Your task to perform on an android device: open app "Messenger Lite" Image 0: 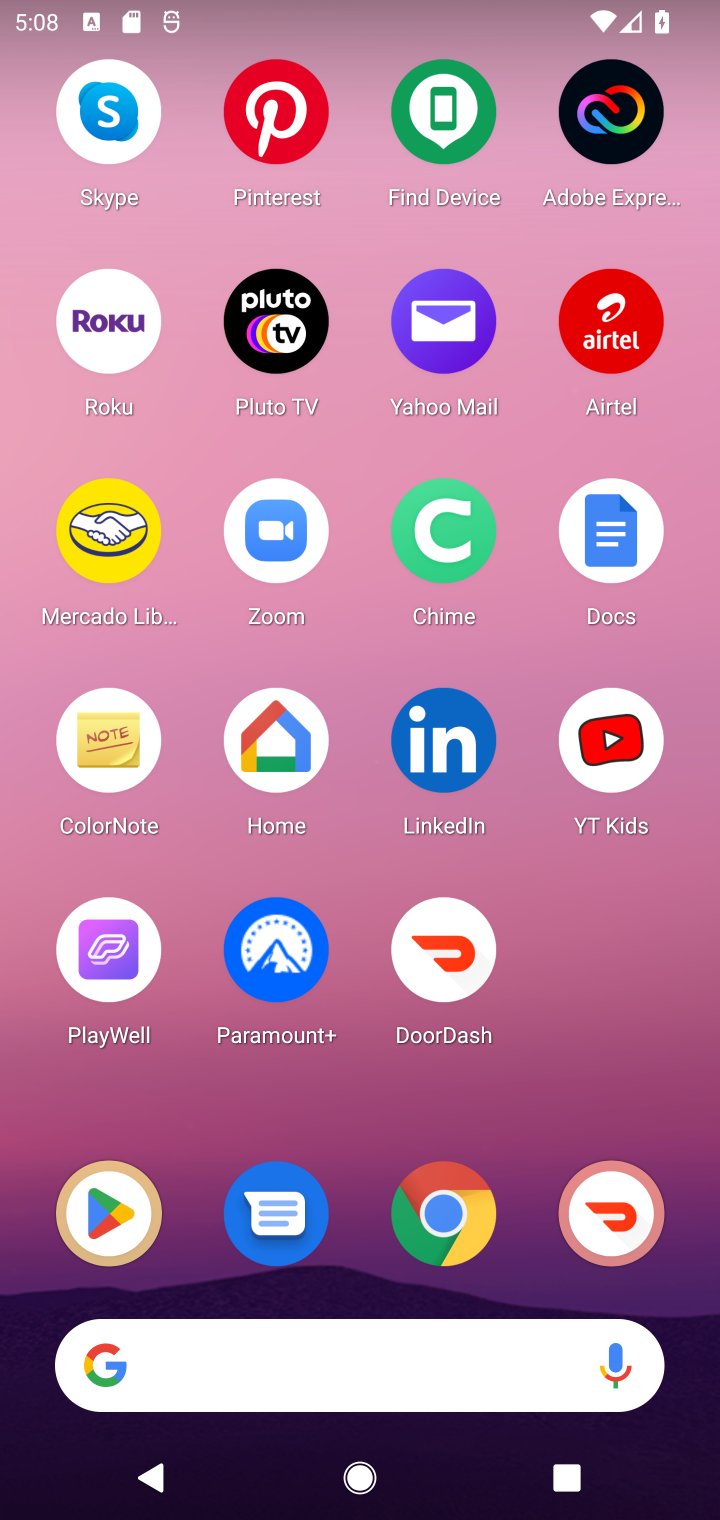
Step 0: press home button
Your task to perform on an android device: open app "Messenger Lite" Image 1: 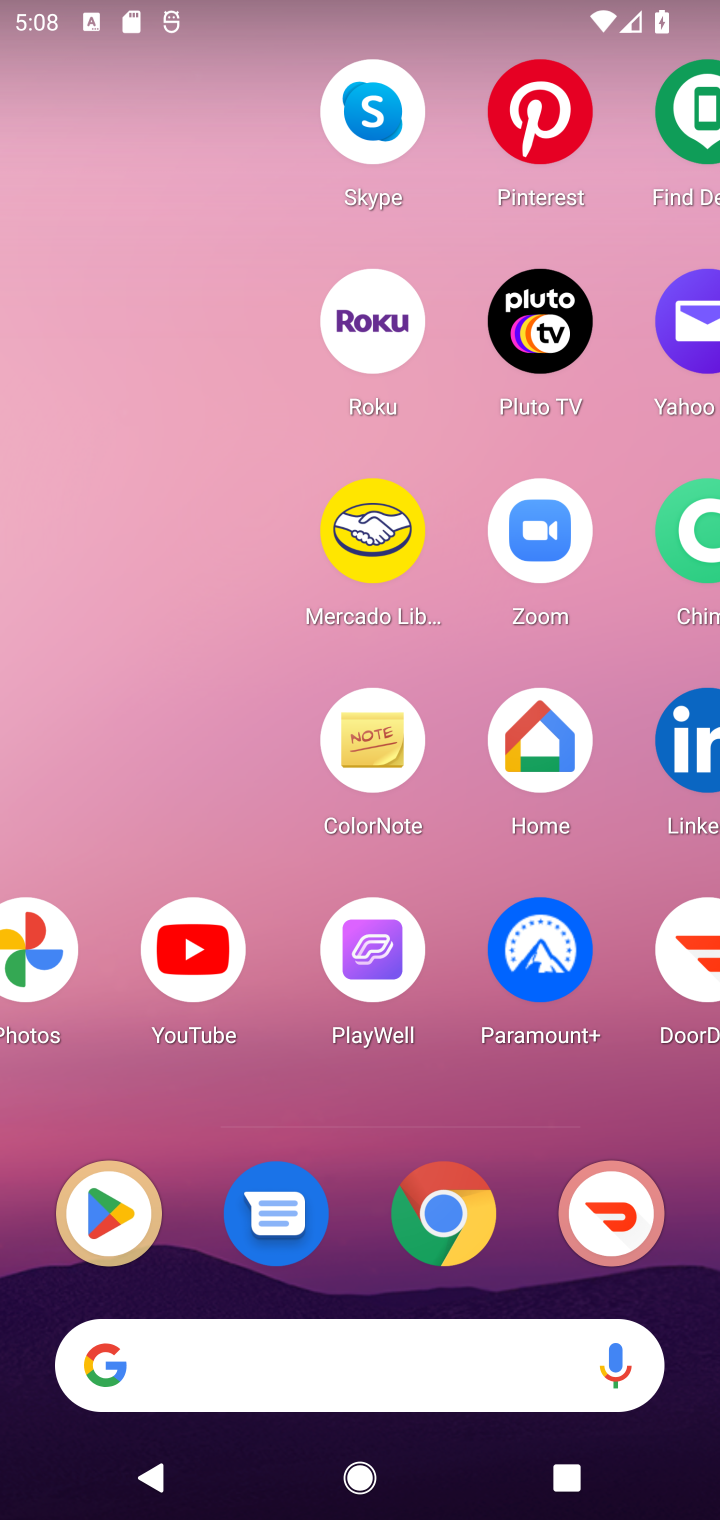
Step 1: drag from (549, 462) to (499, 0)
Your task to perform on an android device: open app "Messenger Lite" Image 2: 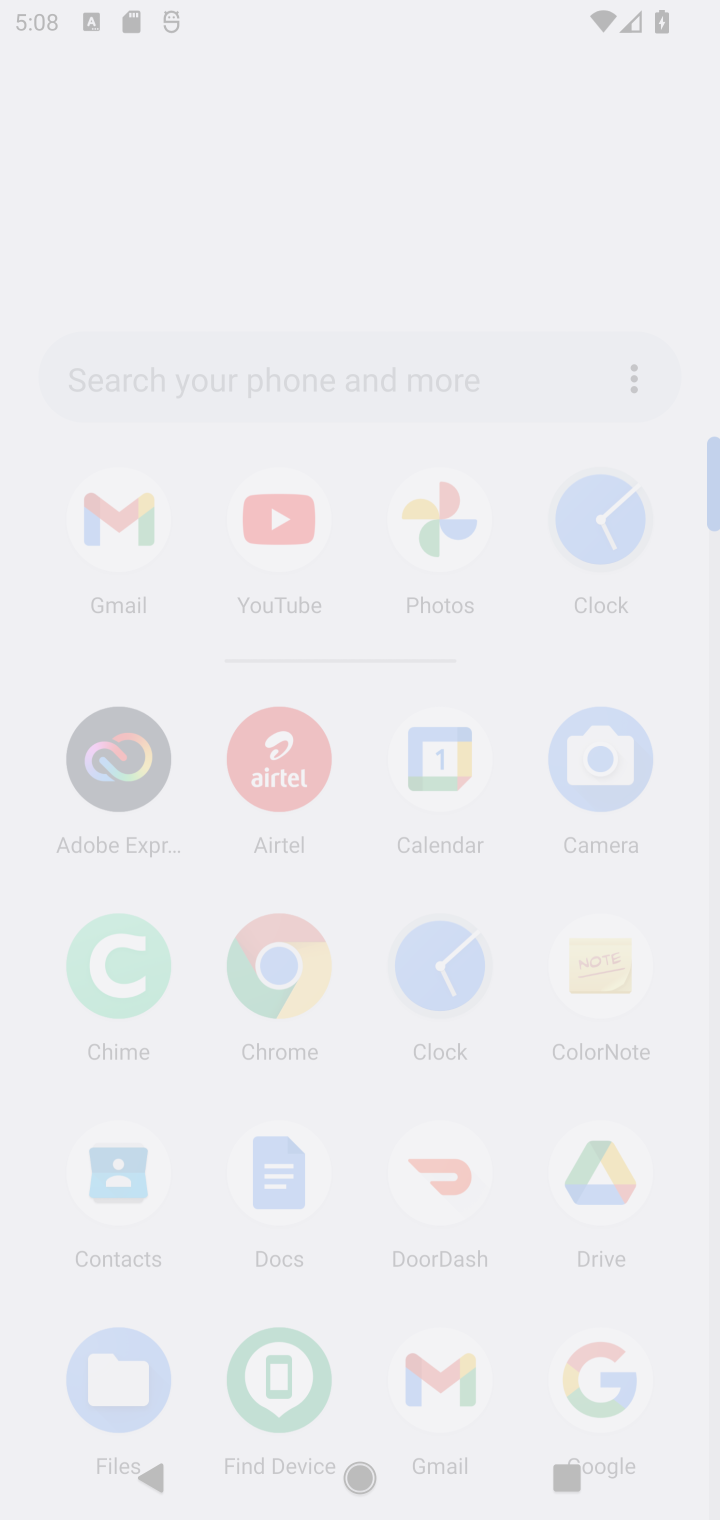
Step 2: drag from (496, 773) to (556, 122)
Your task to perform on an android device: open app "Messenger Lite" Image 3: 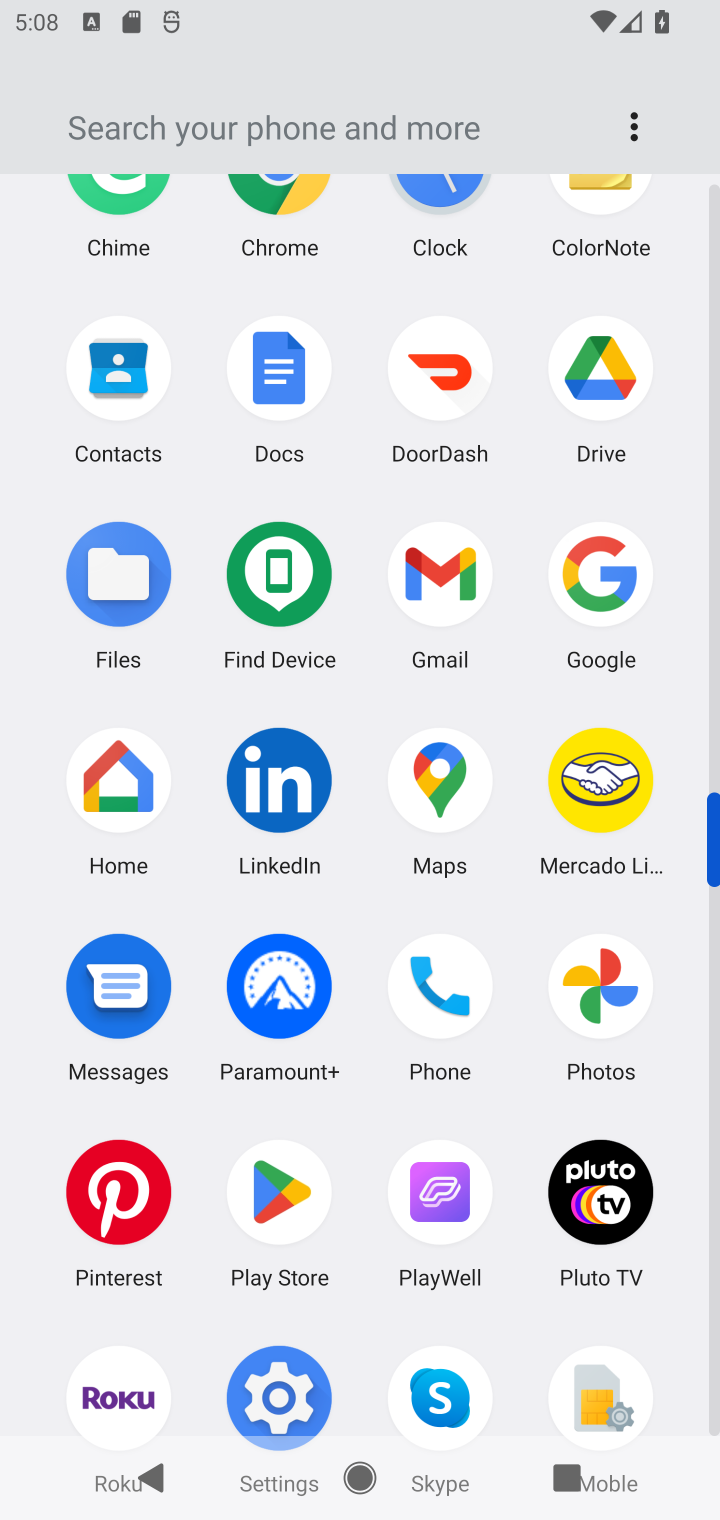
Step 3: click (285, 1186)
Your task to perform on an android device: open app "Messenger Lite" Image 4: 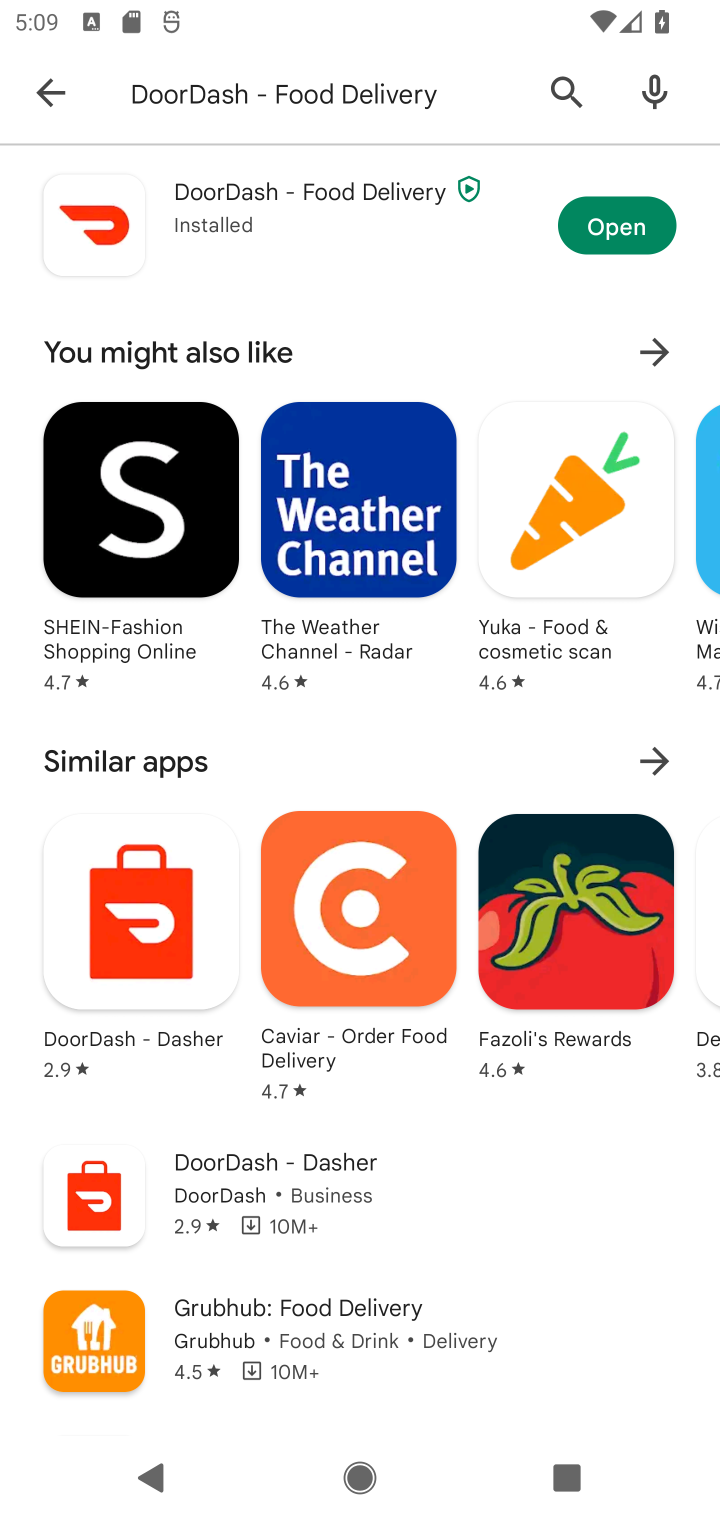
Step 4: click (481, 46)
Your task to perform on an android device: open app "Messenger Lite" Image 5: 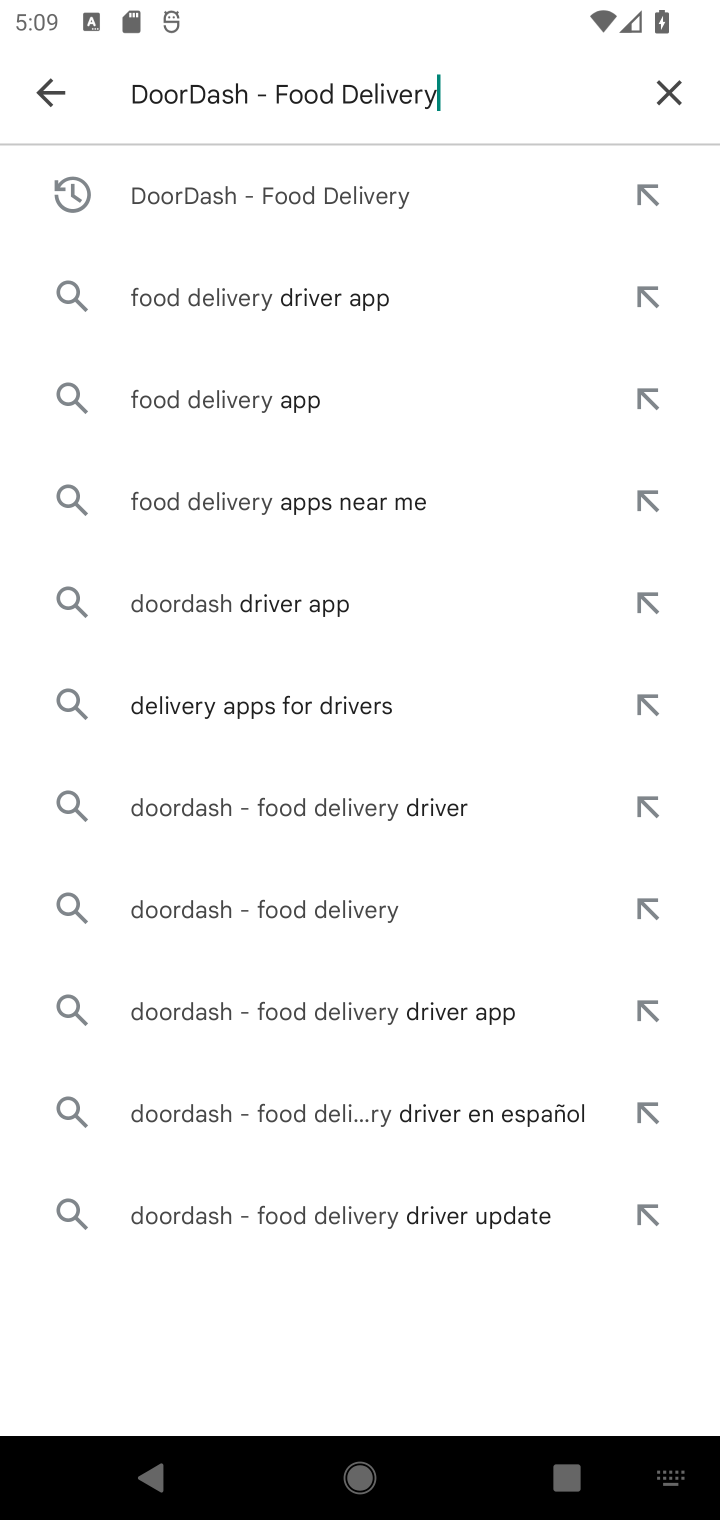
Step 5: click (686, 82)
Your task to perform on an android device: open app "Messenger Lite" Image 6: 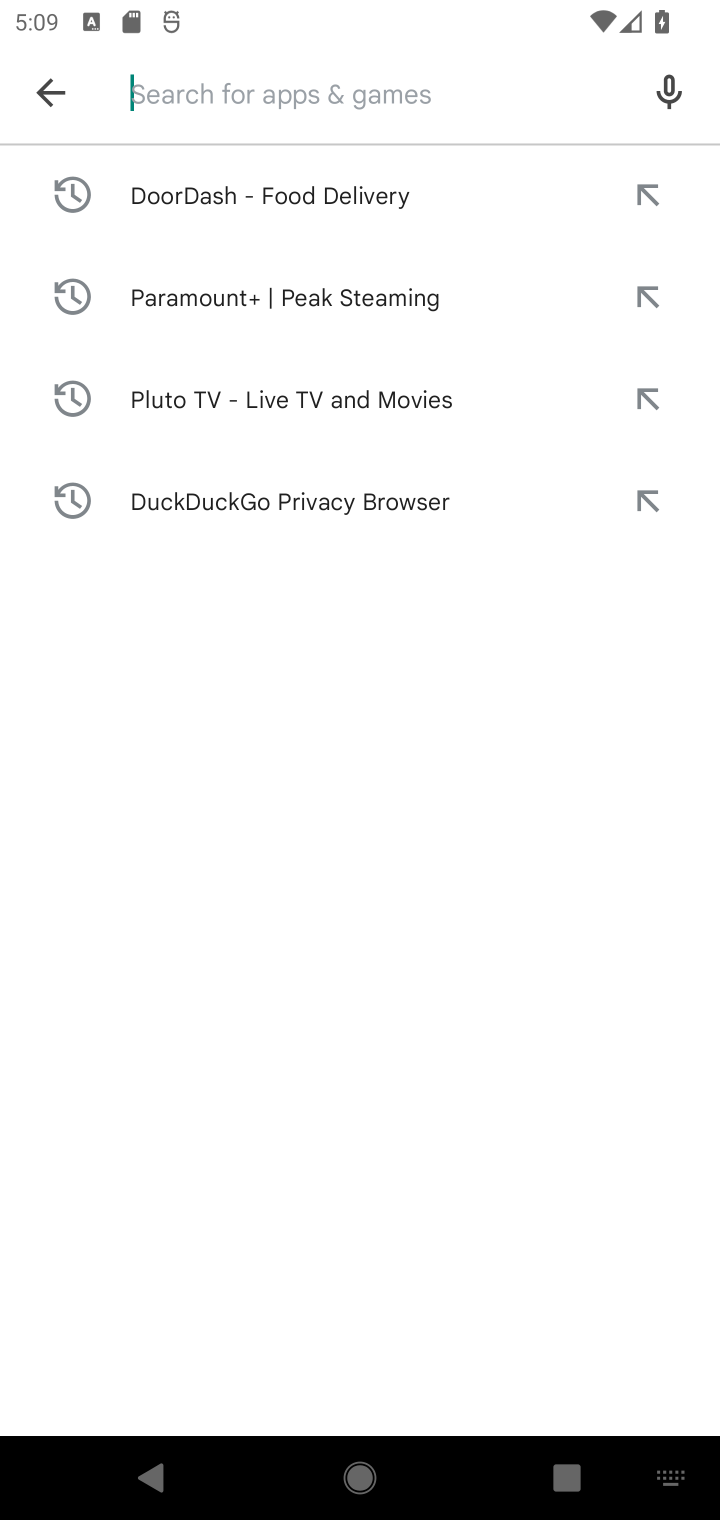
Step 6: type "Messenger Lite"
Your task to perform on an android device: open app "Messenger Lite" Image 7: 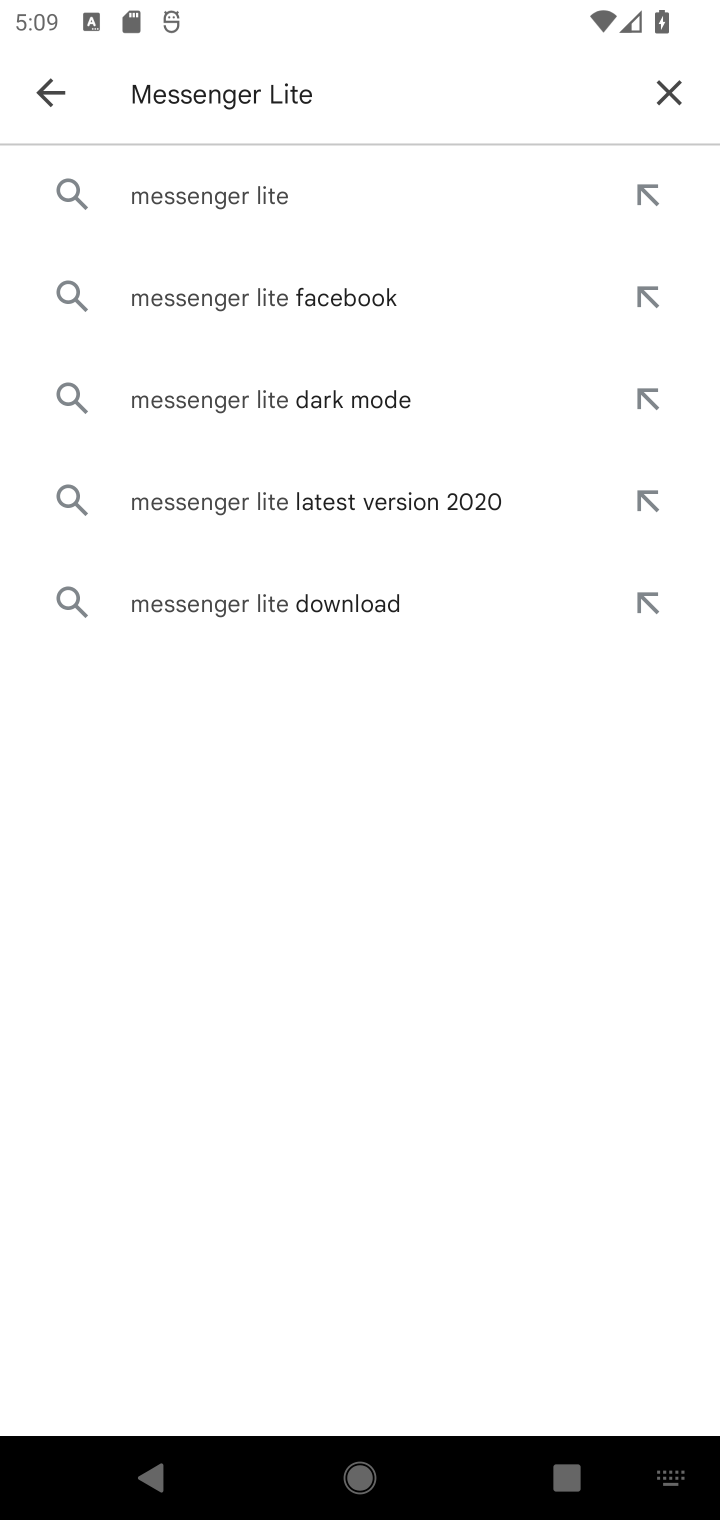
Step 7: press enter
Your task to perform on an android device: open app "Messenger Lite" Image 8: 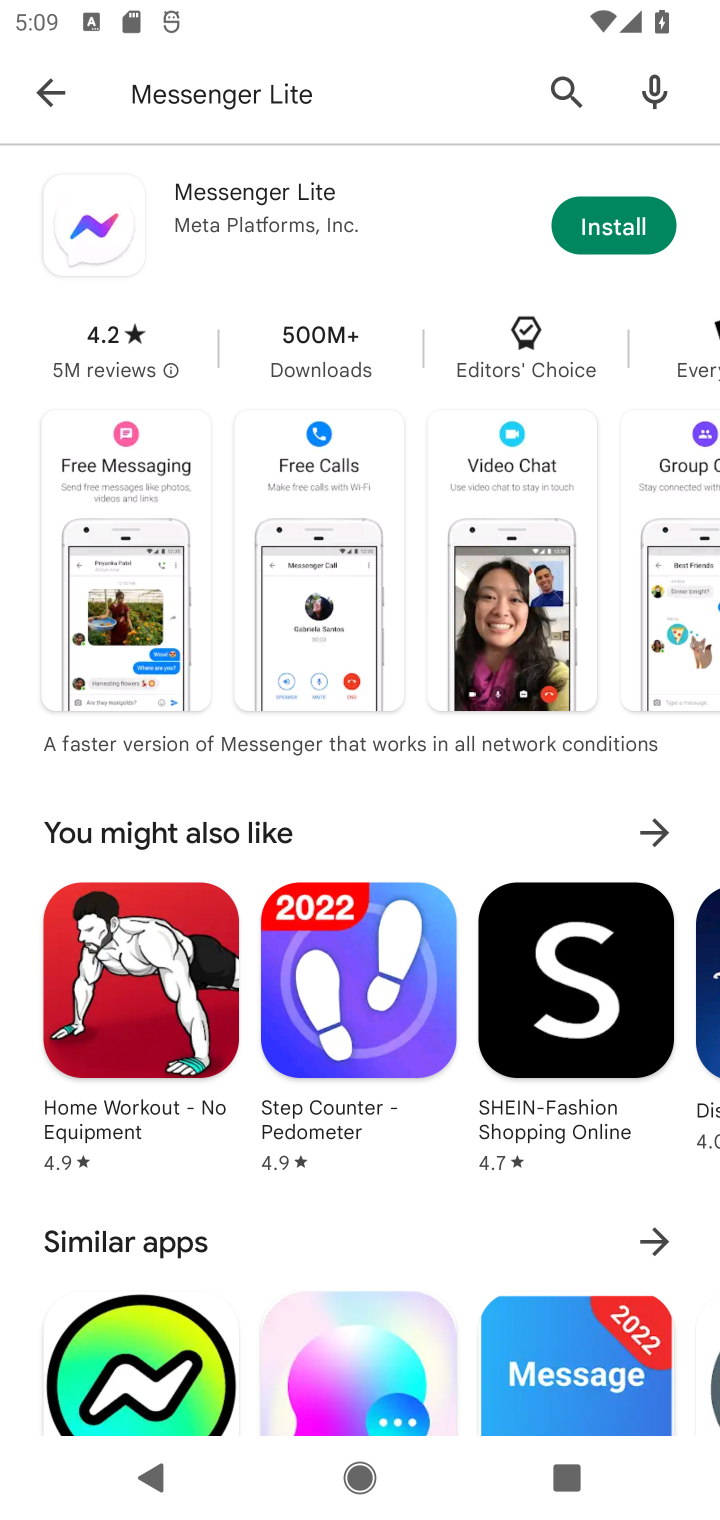
Step 8: task complete